Your task to perform on an android device: Open Youtube and go to "Your channel" Image 0: 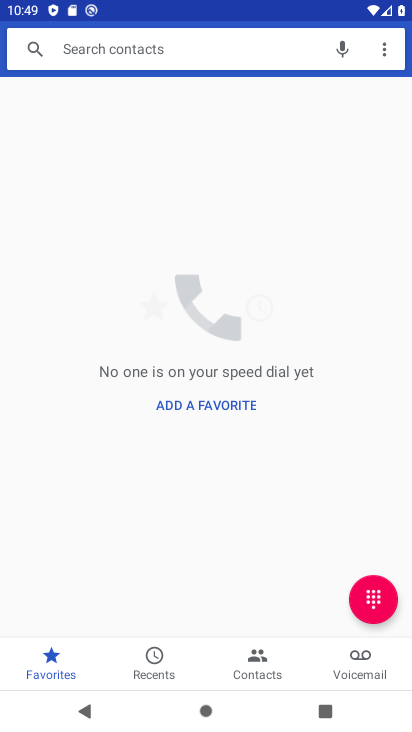
Step 0: press home button
Your task to perform on an android device: Open Youtube and go to "Your channel" Image 1: 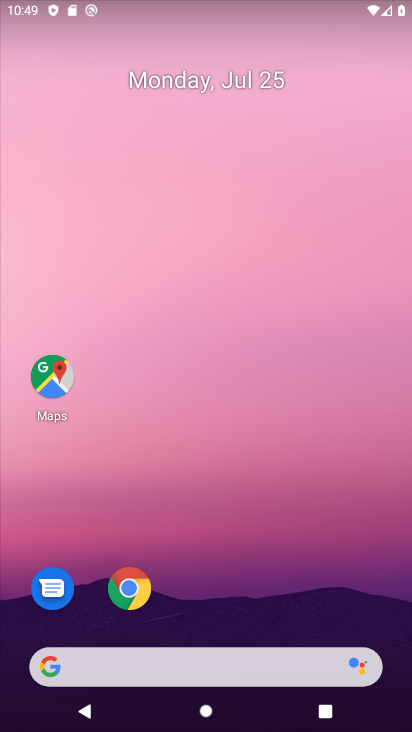
Step 1: drag from (184, 553) to (184, 191)
Your task to perform on an android device: Open Youtube and go to "Your channel" Image 2: 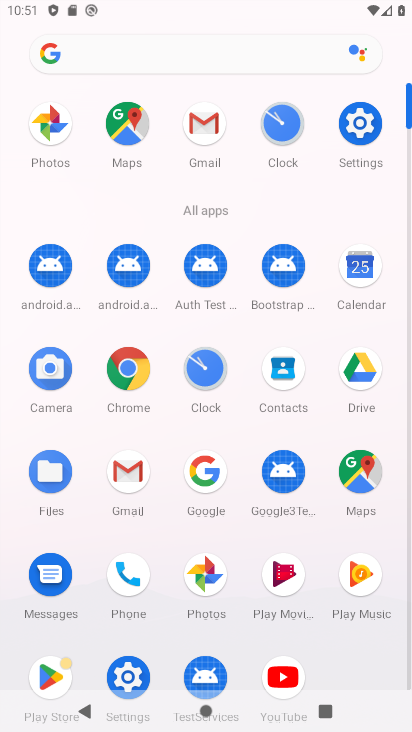
Step 2: click (287, 666)
Your task to perform on an android device: Open Youtube and go to "Your channel" Image 3: 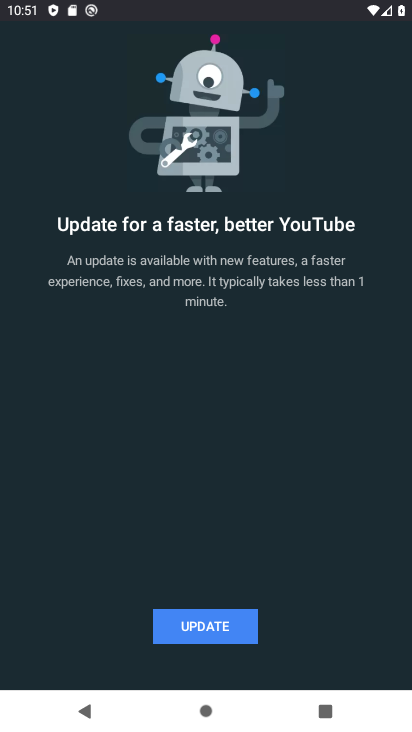
Step 3: click (238, 633)
Your task to perform on an android device: Open Youtube and go to "Your channel" Image 4: 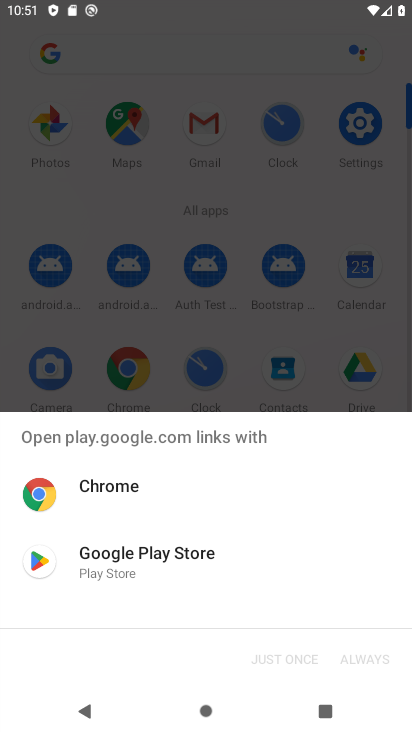
Step 4: click (121, 571)
Your task to perform on an android device: Open Youtube and go to "Your channel" Image 5: 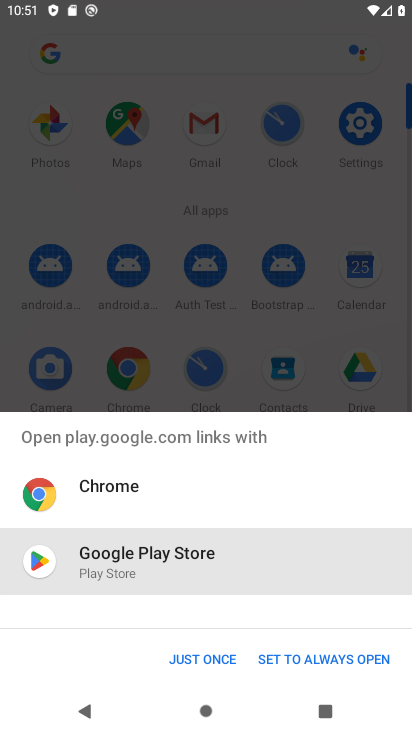
Step 5: click (284, 661)
Your task to perform on an android device: Open Youtube and go to "Your channel" Image 6: 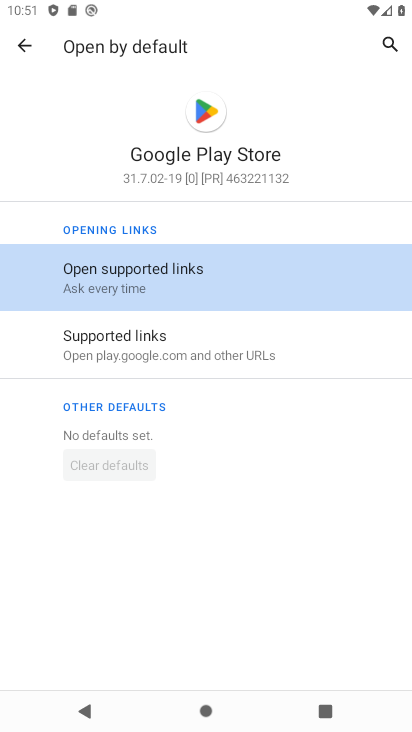
Step 6: click (101, 267)
Your task to perform on an android device: Open Youtube and go to "Your channel" Image 7: 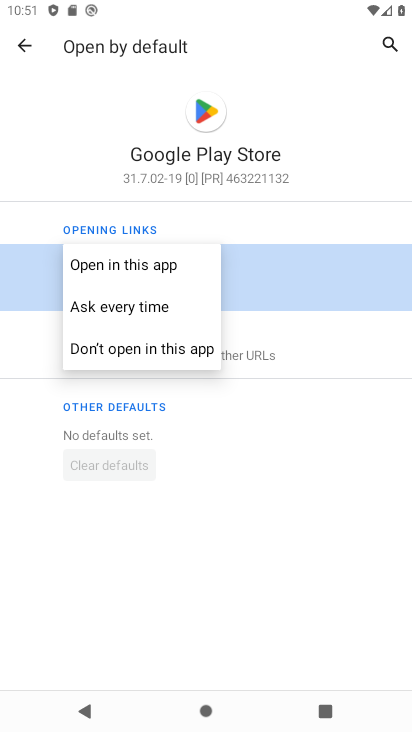
Step 7: click (107, 261)
Your task to perform on an android device: Open Youtube and go to "Your channel" Image 8: 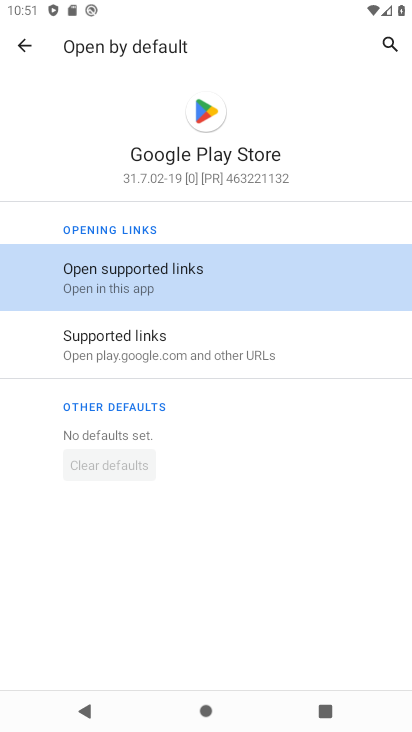
Step 8: click (27, 43)
Your task to perform on an android device: Open Youtube and go to "Your channel" Image 9: 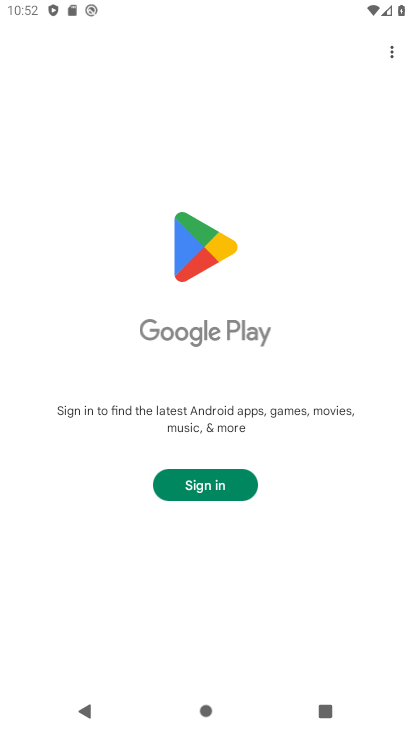
Step 9: click (185, 493)
Your task to perform on an android device: Open Youtube and go to "Your channel" Image 10: 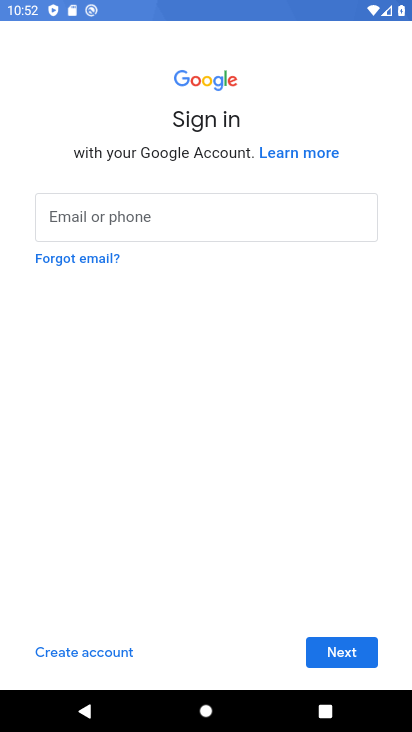
Step 10: task complete